Your task to perform on an android device: Is it going to rain today? Image 0: 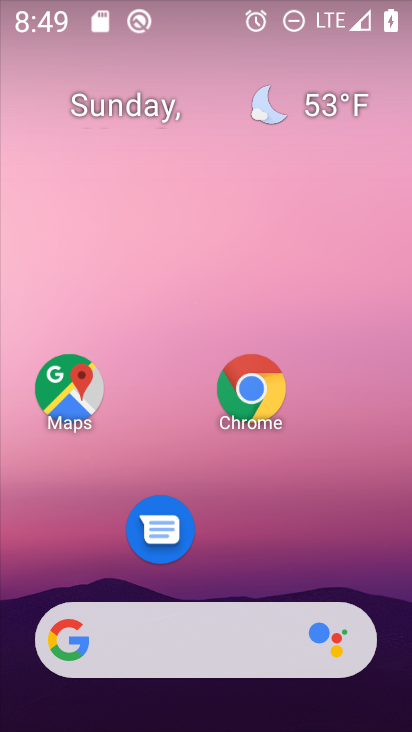
Step 0: click (316, 109)
Your task to perform on an android device: Is it going to rain today? Image 1: 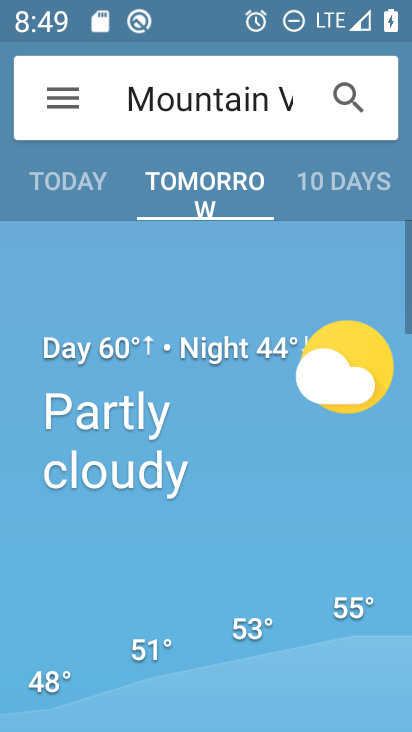
Step 1: click (64, 183)
Your task to perform on an android device: Is it going to rain today? Image 2: 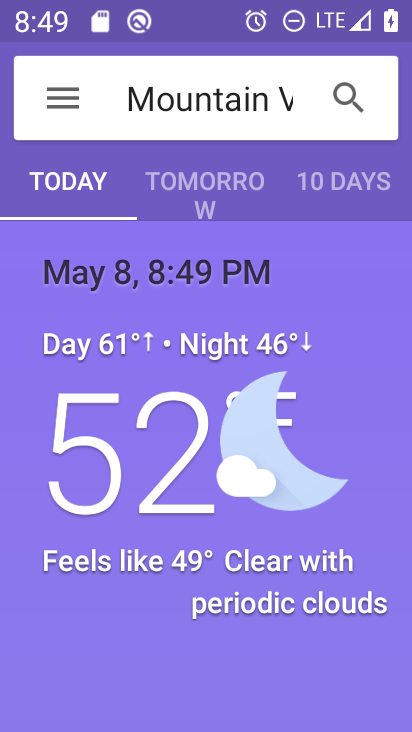
Step 2: task complete